Your task to perform on an android device: change the upload size in google photos Image 0: 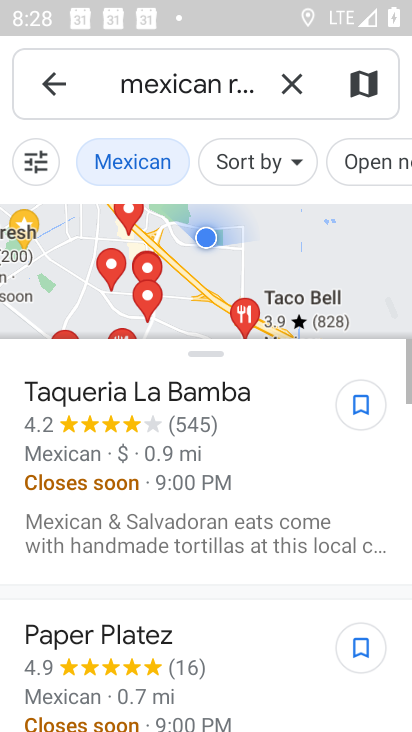
Step 0: press home button
Your task to perform on an android device: change the upload size in google photos Image 1: 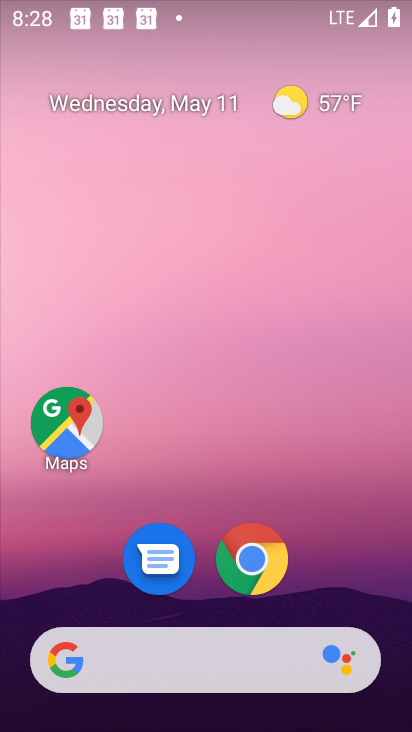
Step 1: drag from (350, 550) to (387, 111)
Your task to perform on an android device: change the upload size in google photos Image 2: 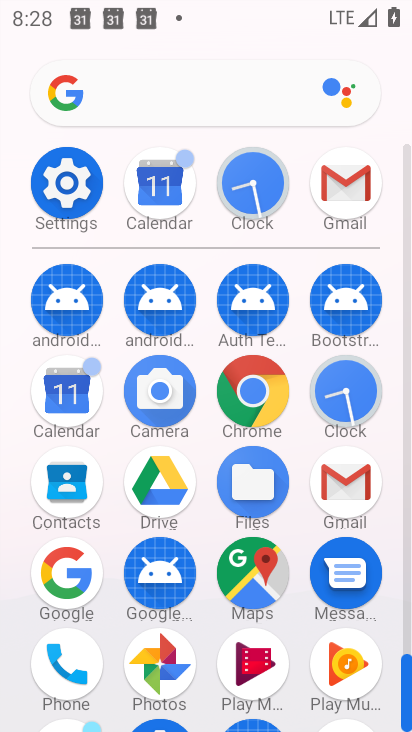
Step 2: drag from (402, 675) to (396, 725)
Your task to perform on an android device: change the upload size in google photos Image 3: 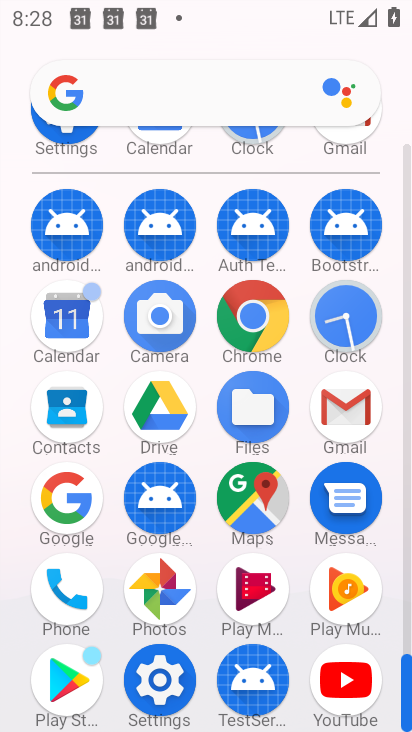
Step 3: click (134, 598)
Your task to perform on an android device: change the upload size in google photos Image 4: 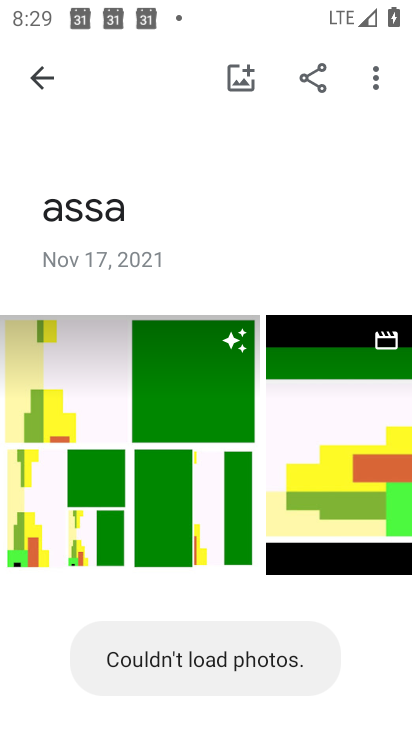
Step 4: click (40, 75)
Your task to perform on an android device: change the upload size in google photos Image 5: 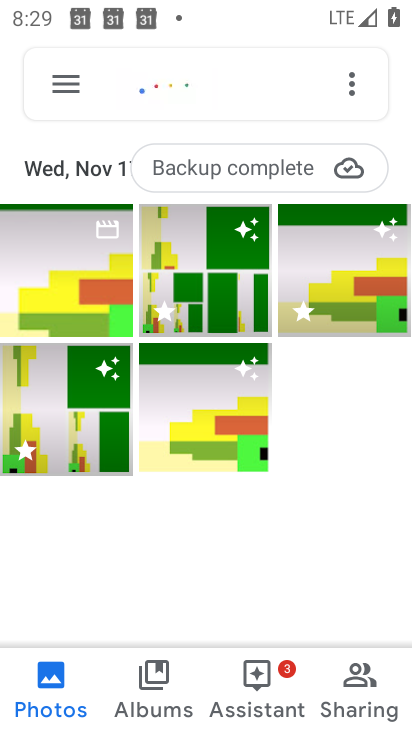
Step 5: click (181, 78)
Your task to perform on an android device: change the upload size in google photos Image 6: 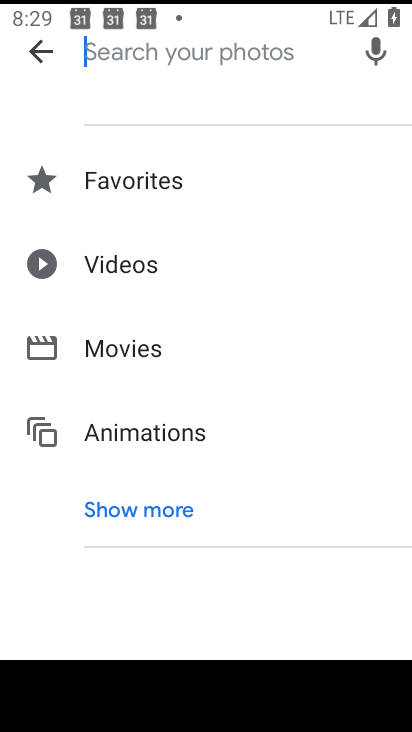
Step 6: click (34, 34)
Your task to perform on an android device: change the upload size in google photos Image 7: 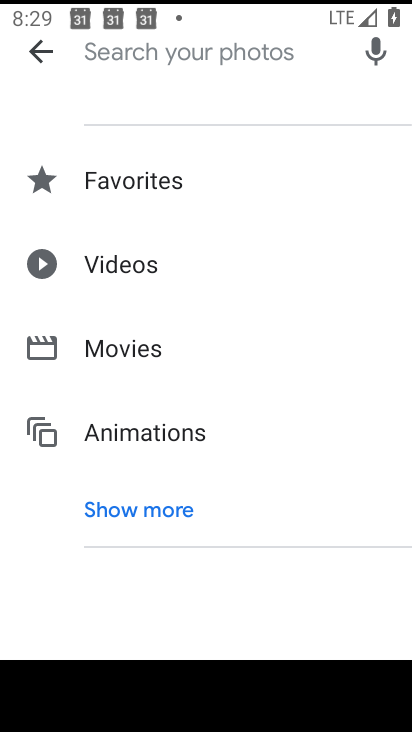
Step 7: click (37, 46)
Your task to perform on an android device: change the upload size in google photos Image 8: 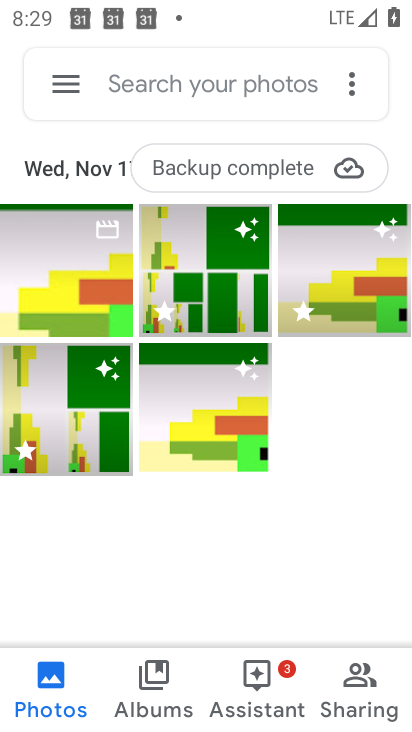
Step 8: click (67, 81)
Your task to perform on an android device: change the upload size in google photos Image 9: 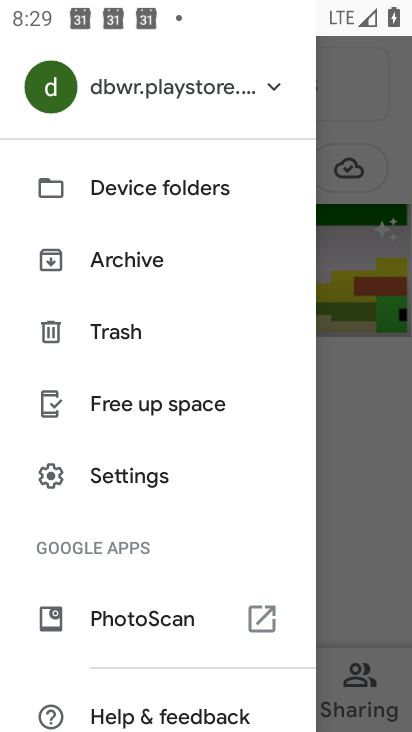
Step 9: click (96, 485)
Your task to perform on an android device: change the upload size in google photos Image 10: 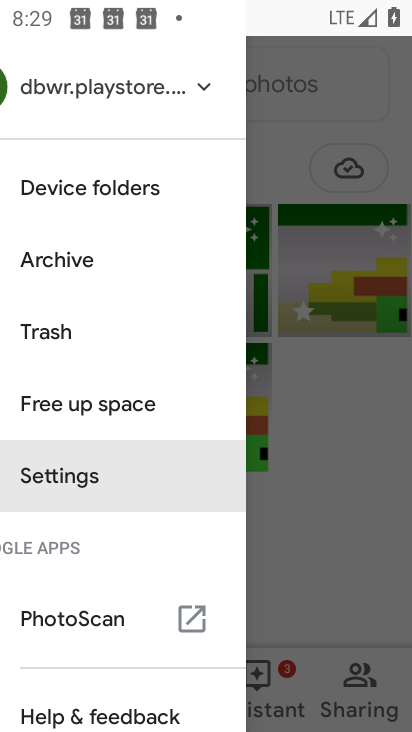
Step 10: click (96, 485)
Your task to perform on an android device: change the upload size in google photos Image 11: 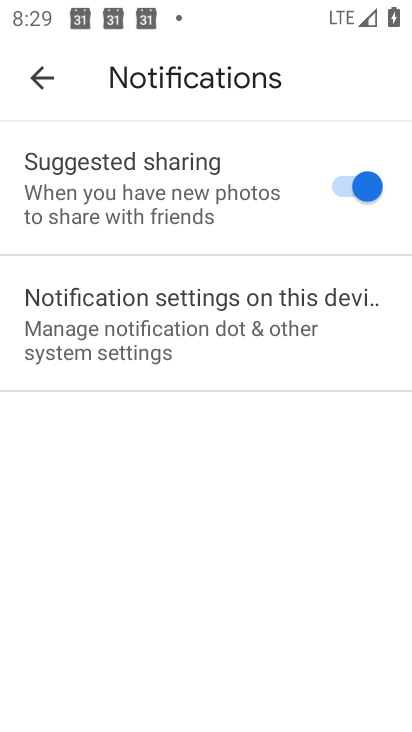
Step 11: click (43, 79)
Your task to perform on an android device: change the upload size in google photos Image 12: 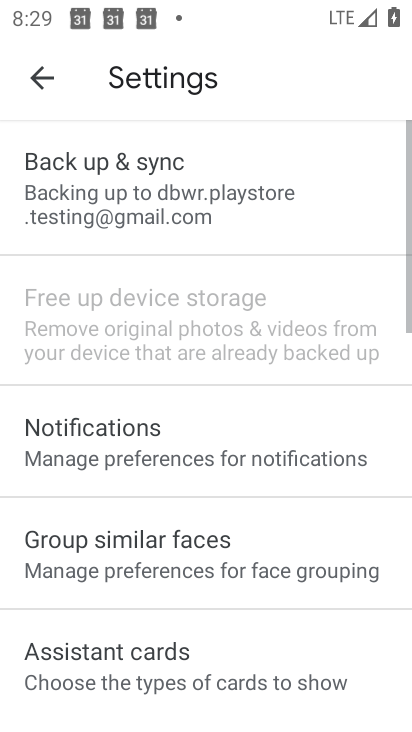
Step 12: click (93, 152)
Your task to perform on an android device: change the upload size in google photos Image 13: 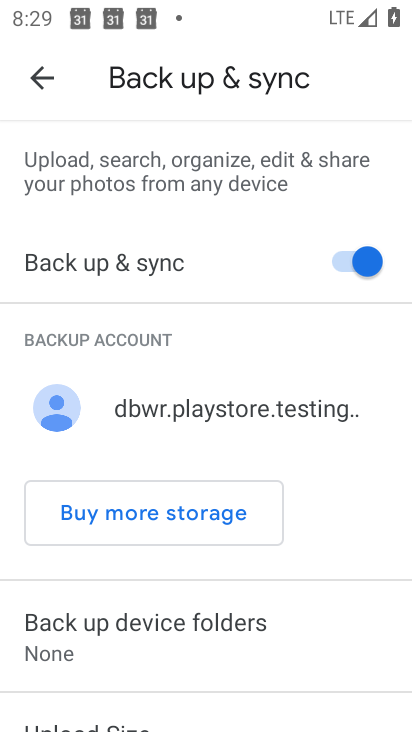
Step 13: drag from (191, 606) to (221, 209)
Your task to perform on an android device: change the upload size in google photos Image 14: 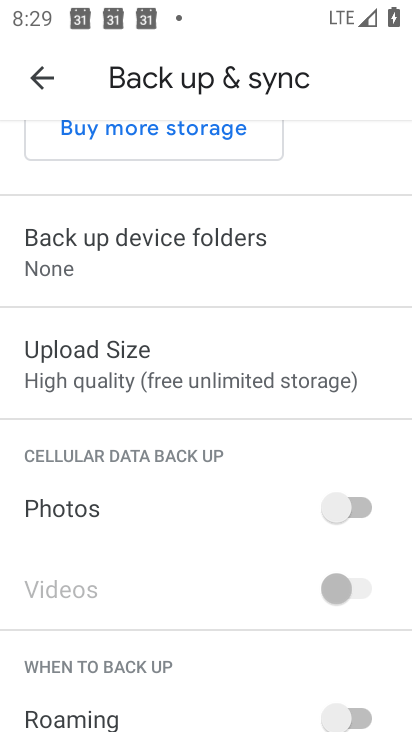
Step 14: click (217, 383)
Your task to perform on an android device: change the upload size in google photos Image 15: 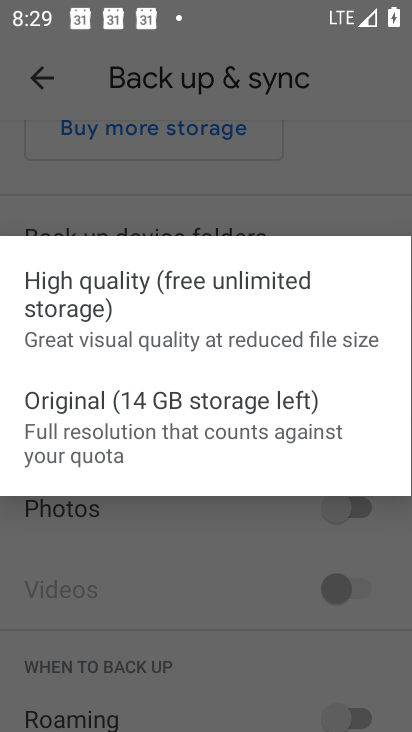
Step 15: click (219, 400)
Your task to perform on an android device: change the upload size in google photos Image 16: 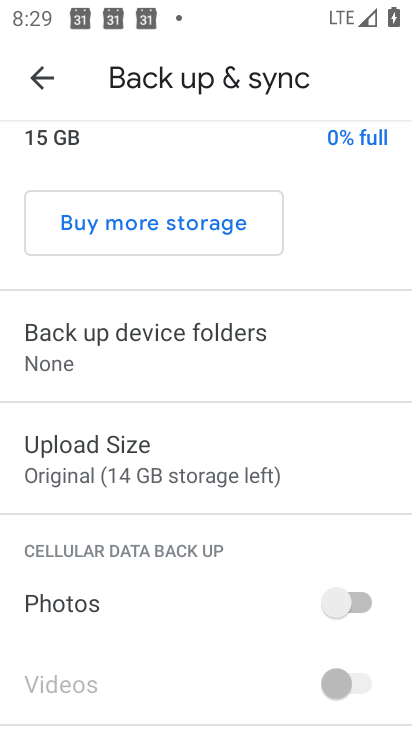
Step 16: task complete